Your task to perform on an android device: See recent photos Image 0: 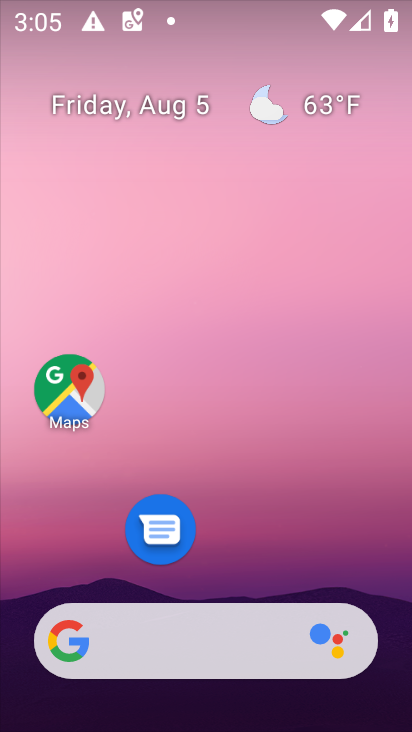
Step 0: drag from (248, 478) to (306, 229)
Your task to perform on an android device: See recent photos Image 1: 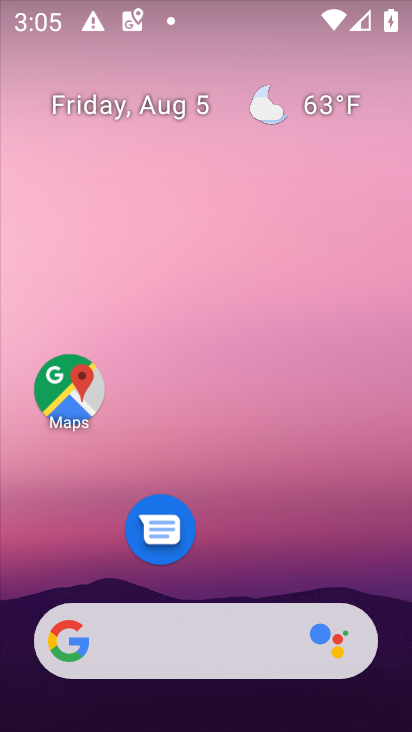
Step 1: drag from (250, 722) to (288, 147)
Your task to perform on an android device: See recent photos Image 2: 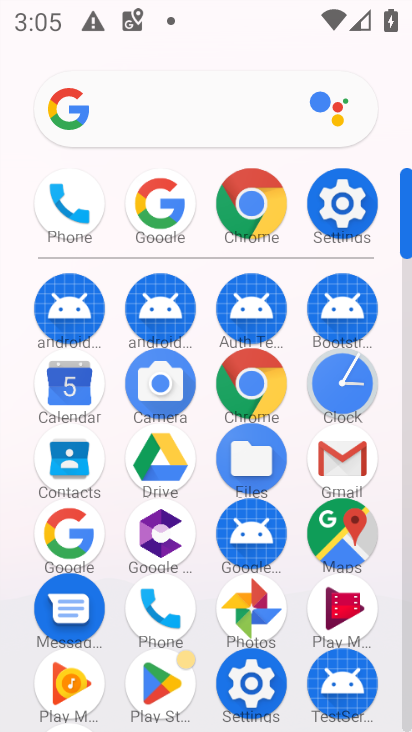
Step 2: click (234, 574)
Your task to perform on an android device: See recent photos Image 3: 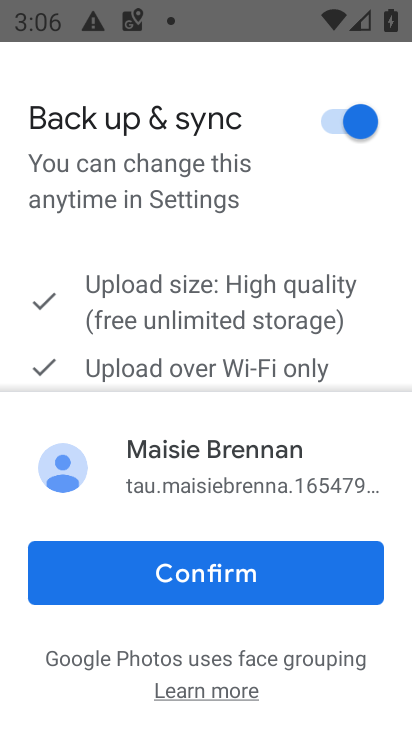
Step 3: click (193, 598)
Your task to perform on an android device: See recent photos Image 4: 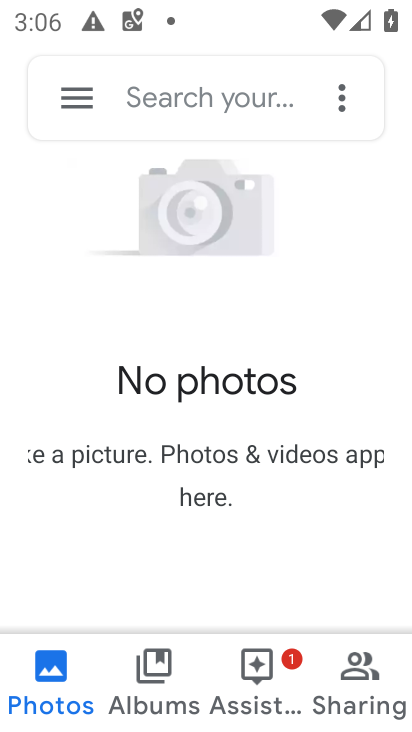
Step 4: task complete